Your task to perform on an android device: Show me popular videos on Youtube Image 0: 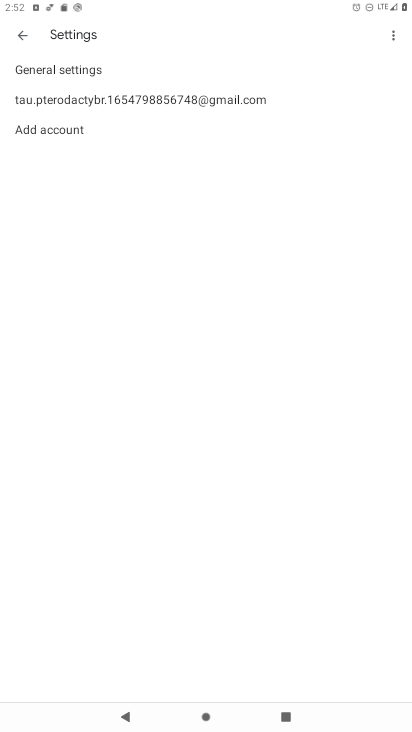
Step 0: press home button
Your task to perform on an android device: Show me popular videos on Youtube Image 1: 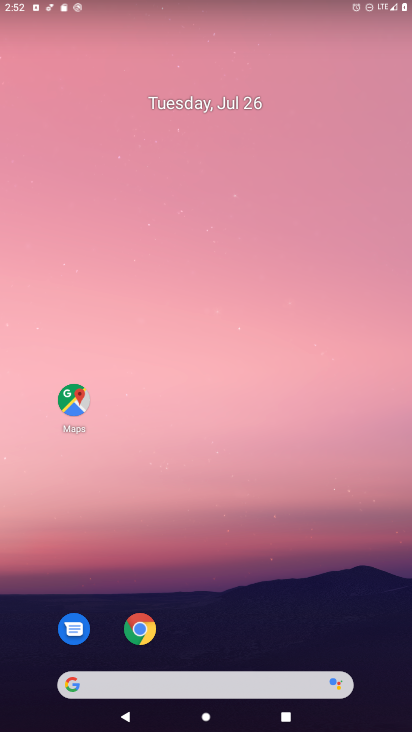
Step 1: drag from (388, 687) to (344, 290)
Your task to perform on an android device: Show me popular videos on Youtube Image 2: 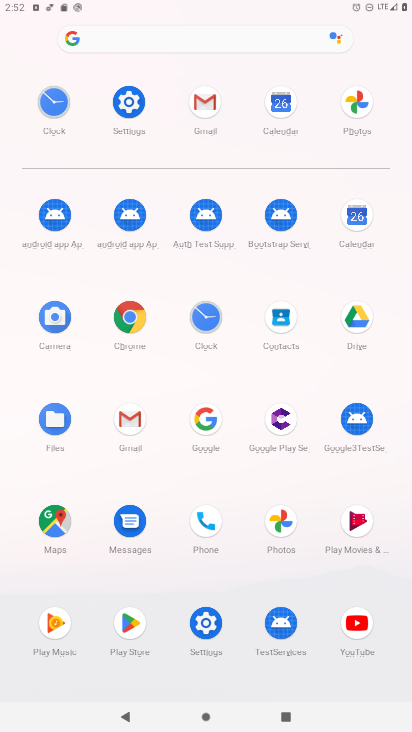
Step 2: click (357, 621)
Your task to perform on an android device: Show me popular videos on Youtube Image 3: 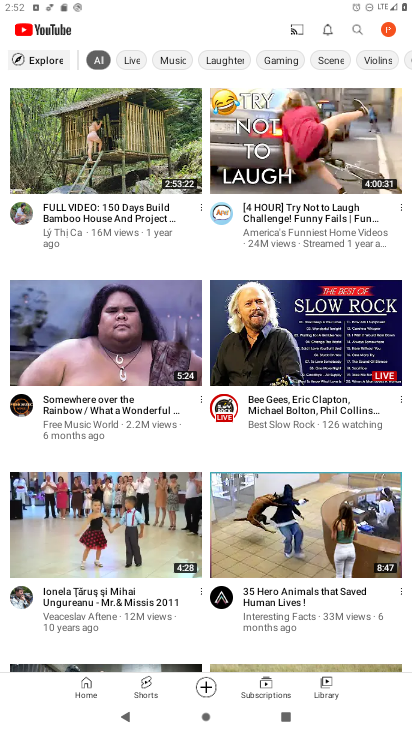
Step 3: click (29, 55)
Your task to perform on an android device: Show me popular videos on Youtube Image 4: 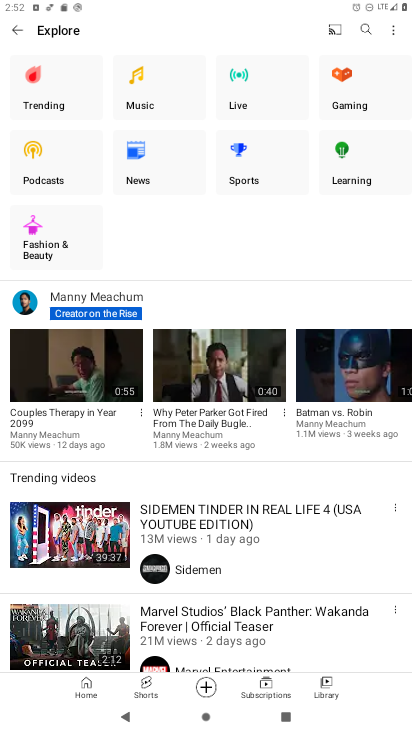
Step 4: click (40, 91)
Your task to perform on an android device: Show me popular videos on Youtube Image 5: 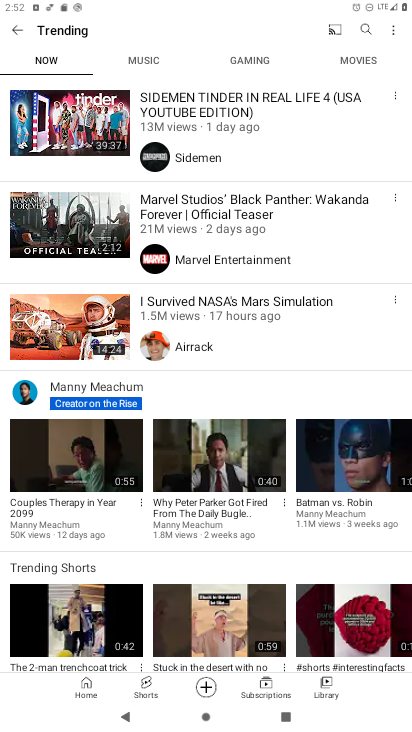
Step 5: task complete